Your task to perform on an android device: Do I have any events today? Image 0: 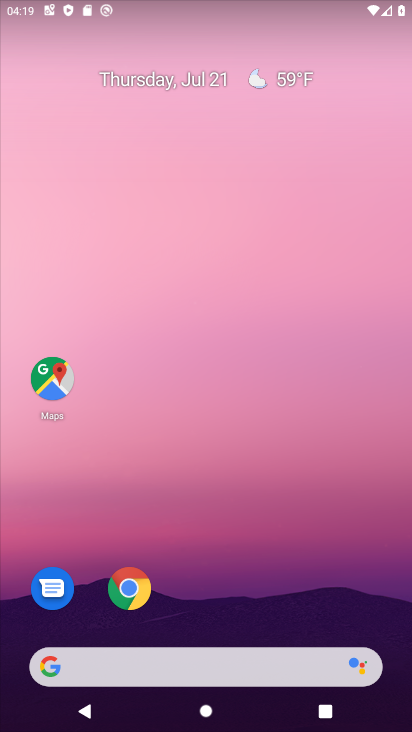
Step 0: drag from (243, 568) to (245, 98)
Your task to perform on an android device: Do I have any events today? Image 1: 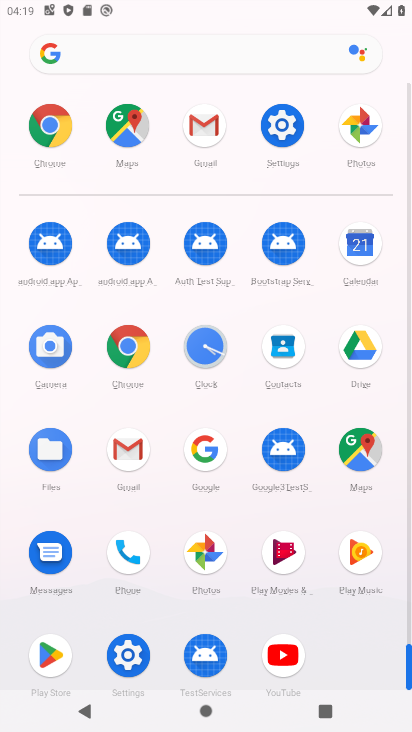
Step 1: click (365, 245)
Your task to perform on an android device: Do I have any events today? Image 2: 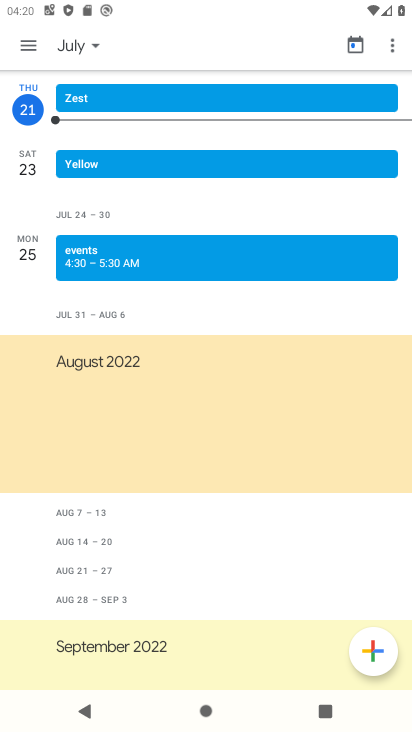
Step 2: click (20, 44)
Your task to perform on an android device: Do I have any events today? Image 3: 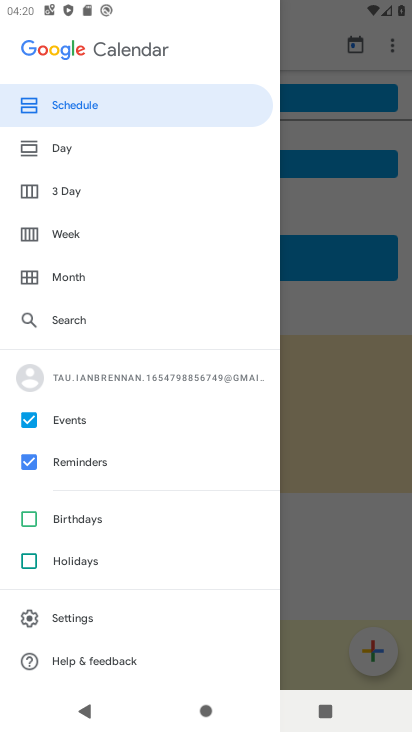
Step 3: click (85, 458)
Your task to perform on an android device: Do I have any events today? Image 4: 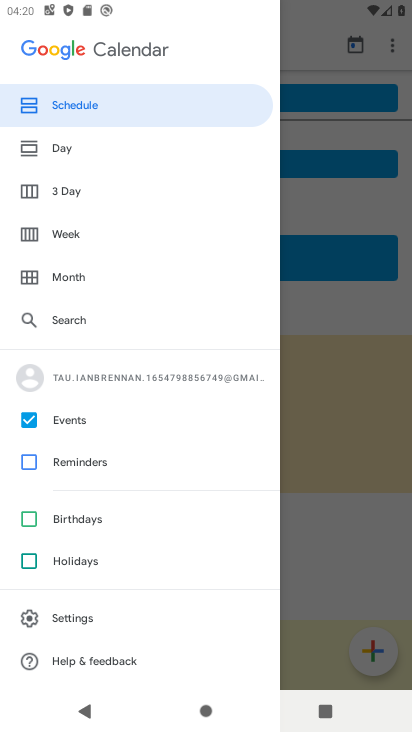
Step 4: click (53, 149)
Your task to perform on an android device: Do I have any events today? Image 5: 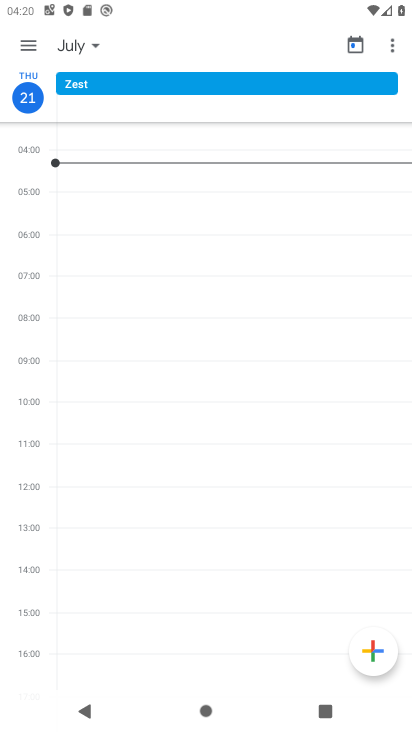
Step 5: task complete